Your task to perform on an android device: Play the last video I watched on Youtube Image 0: 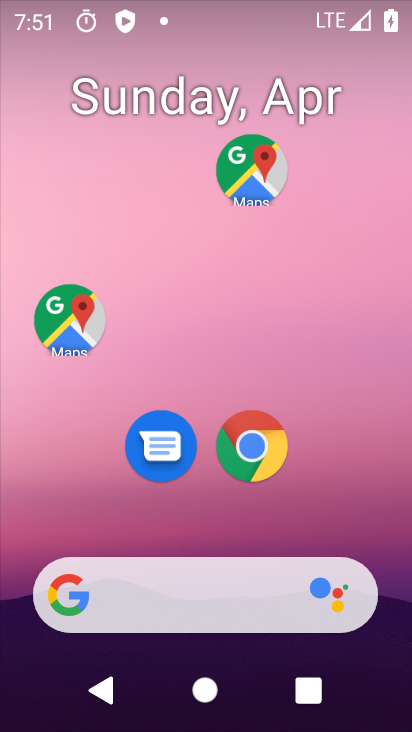
Step 0: drag from (177, 533) to (335, 22)
Your task to perform on an android device: Play the last video I watched on Youtube Image 1: 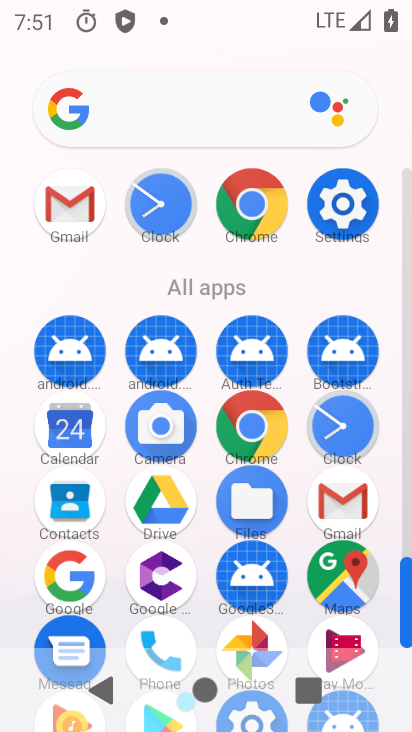
Step 1: drag from (220, 584) to (353, 728)
Your task to perform on an android device: Play the last video I watched on Youtube Image 2: 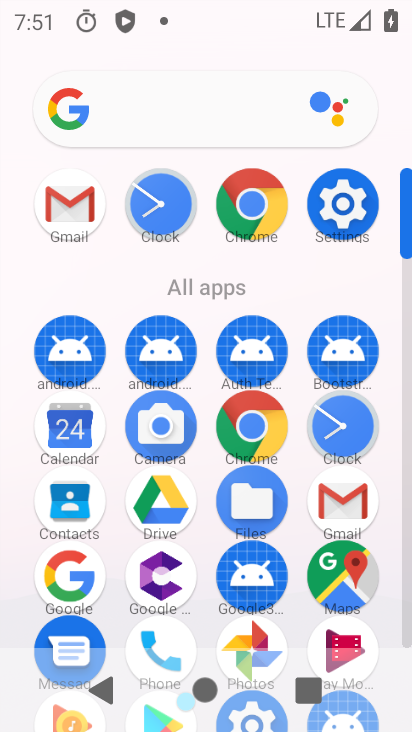
Step 2: drag from (74, 562) to (69, 64)
Your task to perform on an android device: Play the last video I watched on Youtube Image 3: 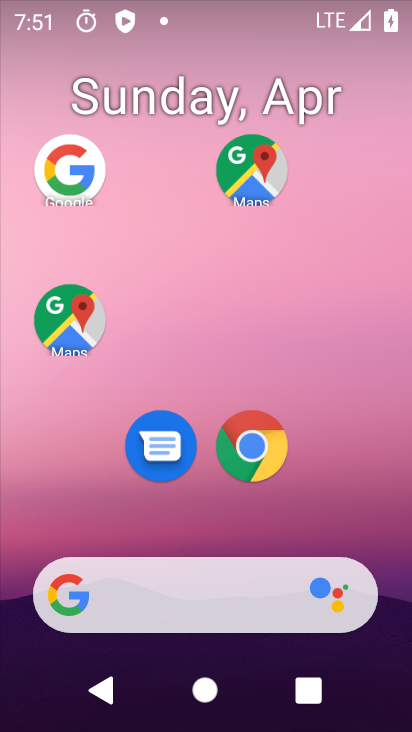
Step 3: drag from (218, 533) to (325, 16)
Your task to perform on an android device: Play the last video I watched on Youtube Image 4: 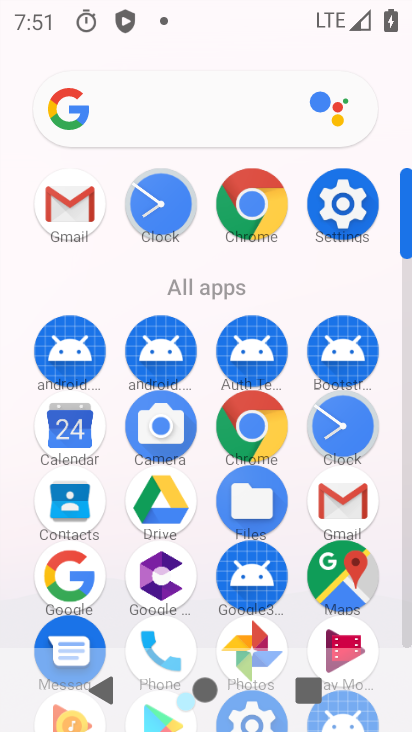
Step 4: drag from (206, 620) to (197, 98)
Your task to perform on an android device: Play the last video I watched on Youtube Image 5: 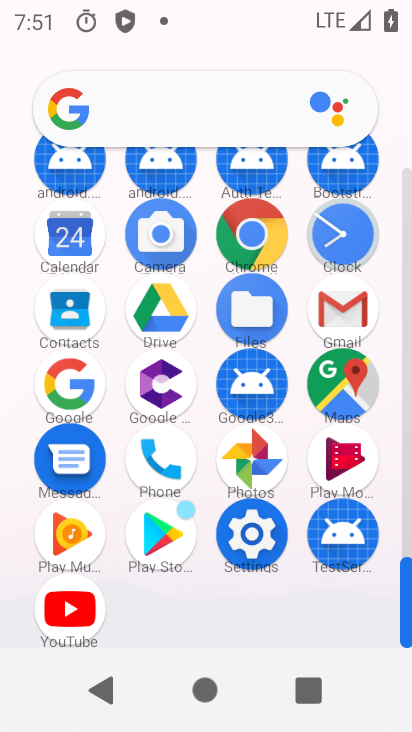
Step 5: click (72, 610)
Your task to perform on an android device: Play the last video I watched on Youtube Image 6: 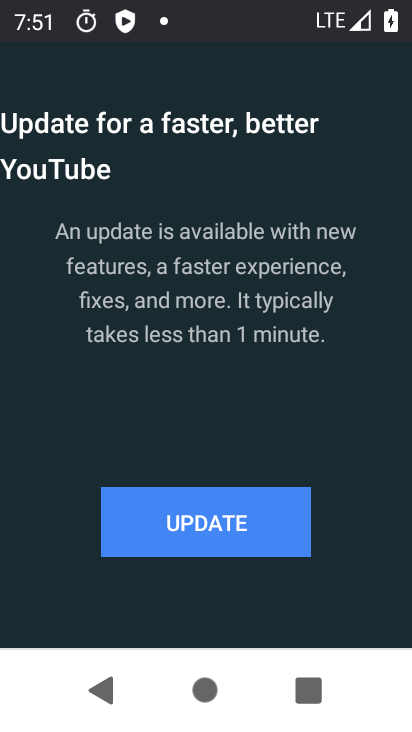
Step 6: click (256, 531)
Your task to perform on an android device: Play the last video I watched on Youtube Image 7: 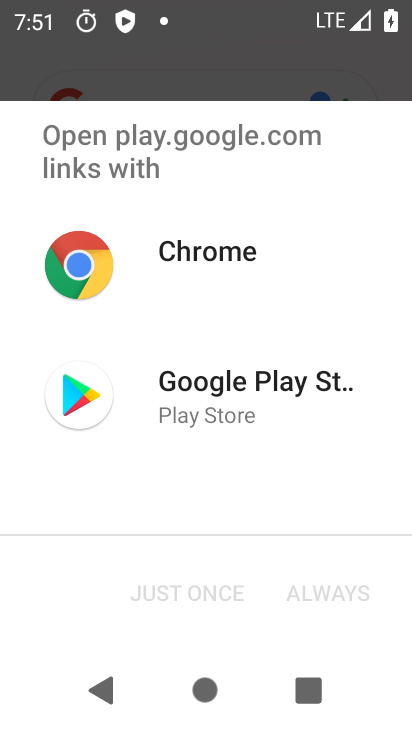
Step 7: click (202, 420)
Your task to perform on an android device: Play the last video I watched on Youtube Image 8: 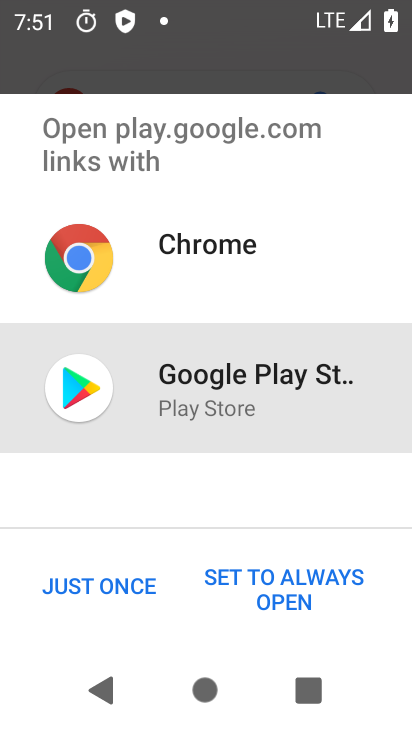
Step 8: click (67, 604)
Your task to perform on an android device: Play the last video I watched on Youtube Image 9: 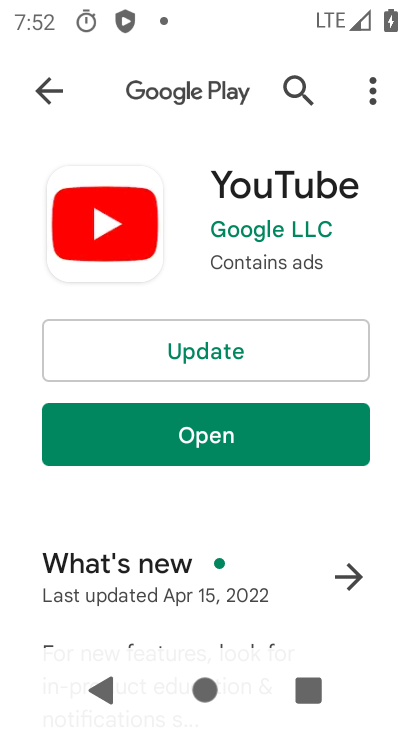
Step 9: click (200, 351)
Your task to perform on an android device: Play the last video I watched on Youtube Image 10: 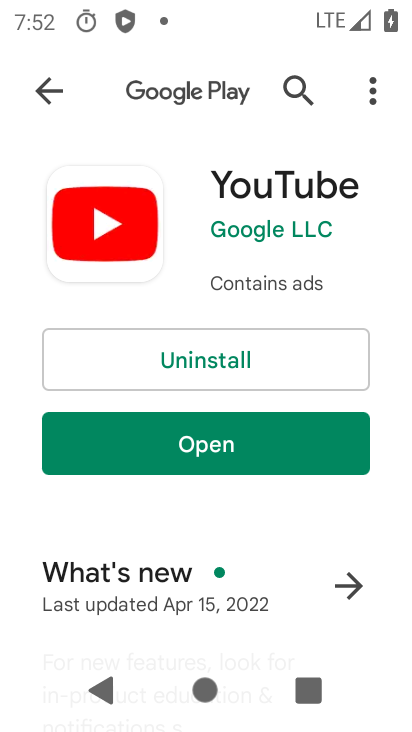
Step 10: click (184, 450)
Your task to perform on an android device: Play the last video I watched on Youtube Image 11: 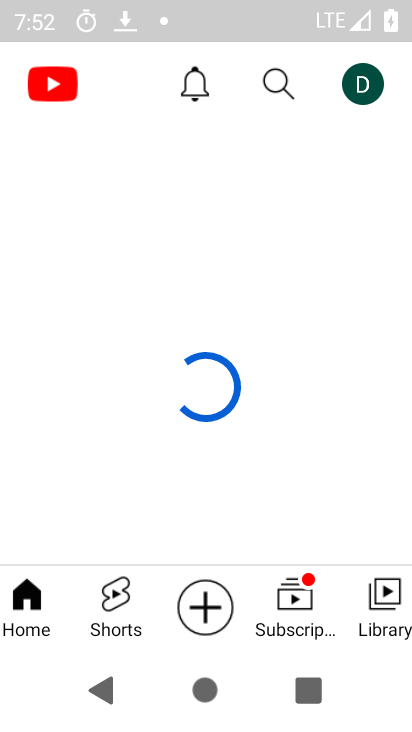
Step 11: click (355, 604)
Your task to perform on an android device: Play the last video I watched on Youtube Image 12: 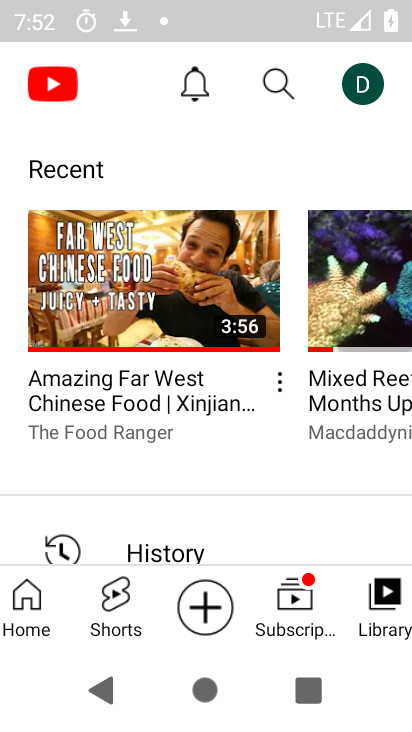
Step 12: click (146, 542)
Your task to perform on an android device: Play the last video I watched on Youtube Image 13: 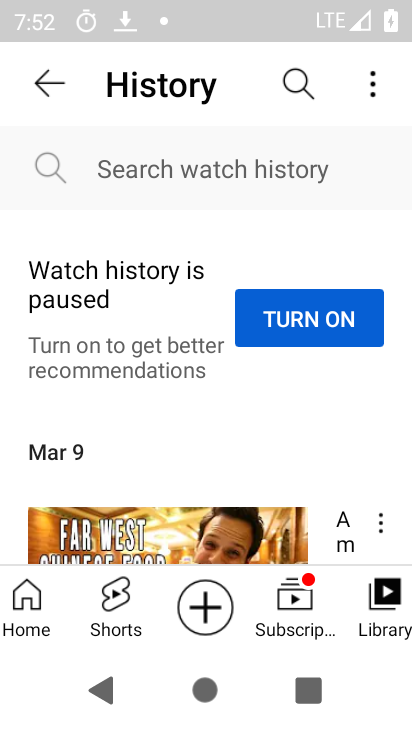
Step 13: click (133, 505)
Your task to perform on an android device: Play the last video I watched on Youtube Image 14: 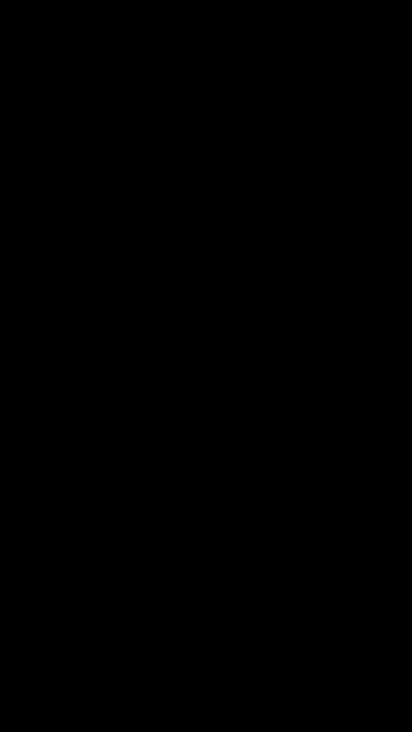
Step 14: task complete